Your task to perform on an android device: Open Youtube and go to the subscriptions tab Image 0: 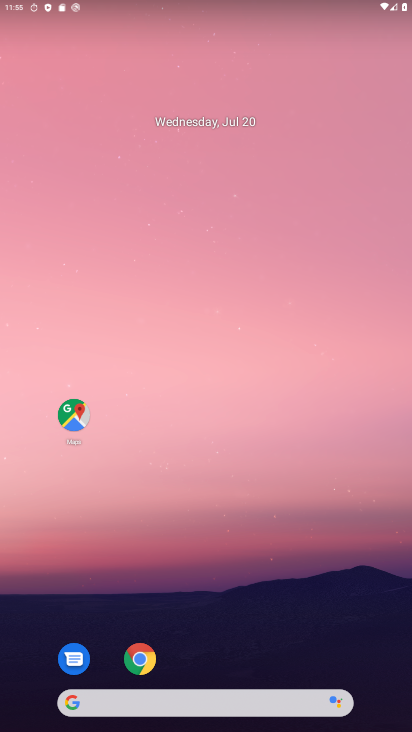
Step 0: drag from (329, 638) to (239, 48)
Your task to perform on an android device: Open Youtube and go to the subscriptions tab Image 1: 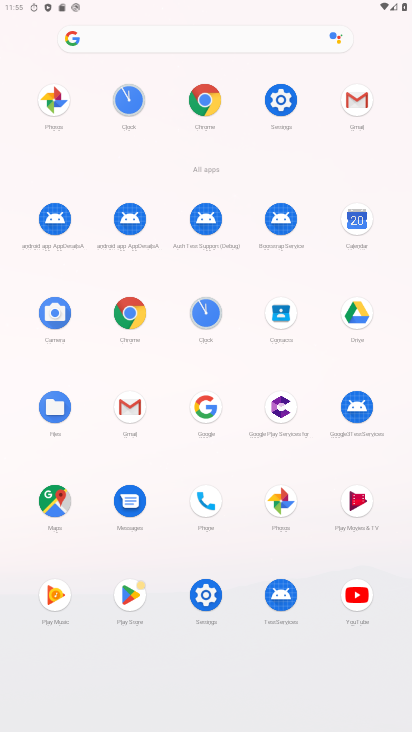
Step 1: click (367, 609)
Your task to perform on an android device: Open Youtube and go to the subscriptions tab Image 2: 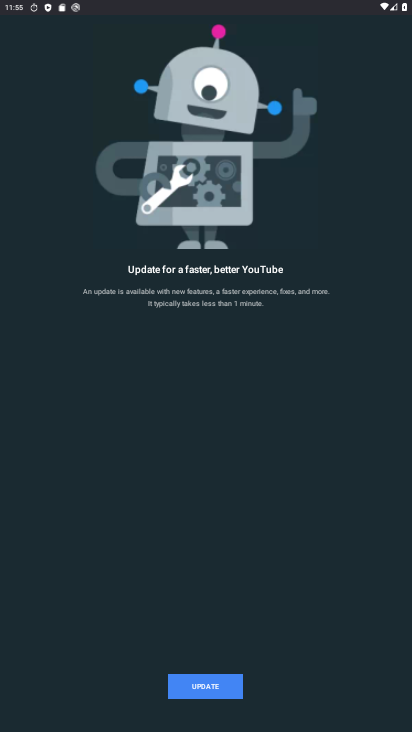
Step 2: click (206, 675)
Your task to perform on an android device: Open Youtube and go to the subscriptions tab Image 3: 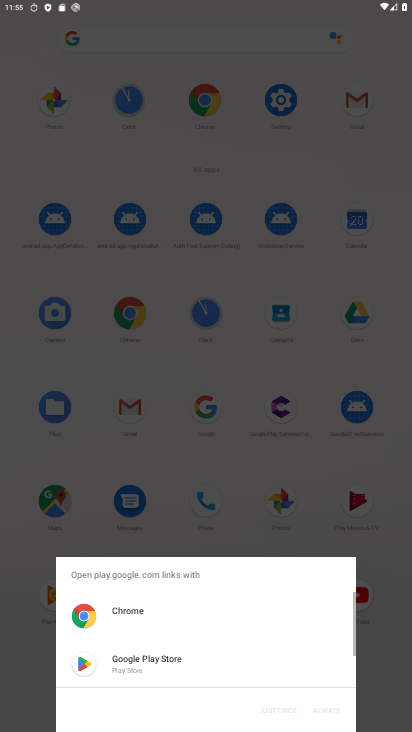
Step 3: click (155, 667)
Your task to perform on an android device: Open Youtube and go to the subscriptions tab Image 4: 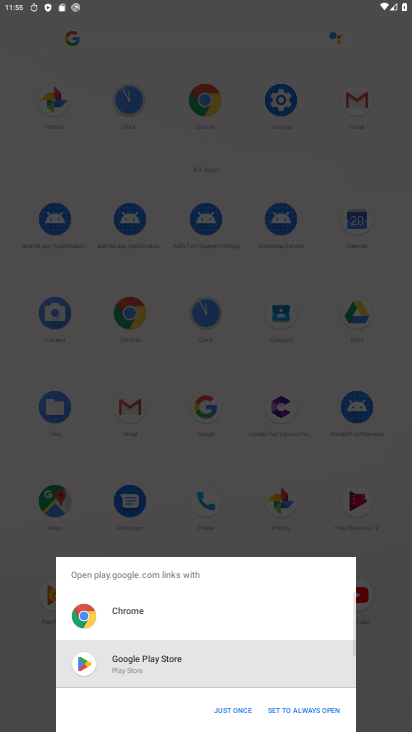
Step 4: click (228, 708)
Your task to perform on an android device: Open Youtube and go to the subscriptions tab Image 5: 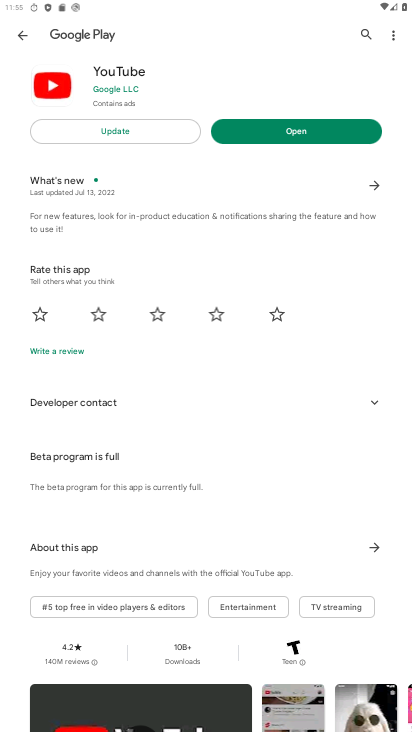
Step 5: click (112, 122)
Your task to perform on an android device: Open Youtube and go to the subscriptions tab Image 6: 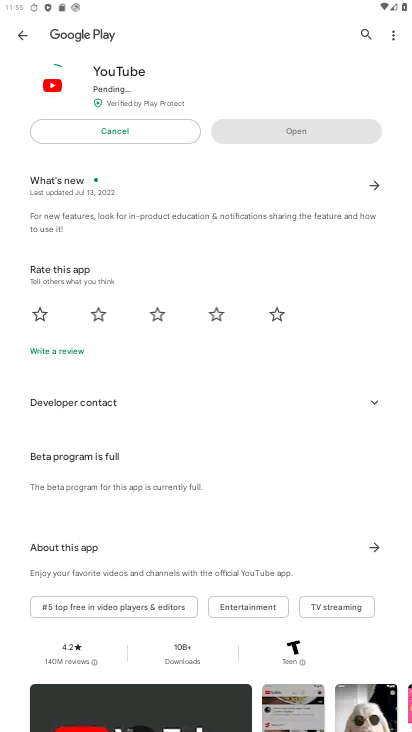
Step 6: task complete